Your task to perform on an android device: Open the map Image 0: 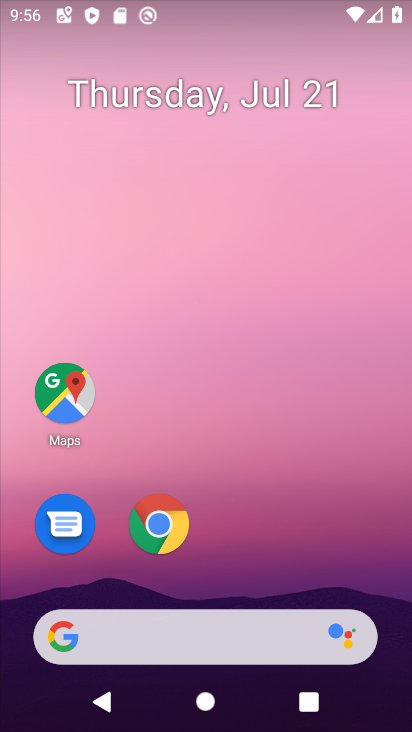
Step 0: press home button
Your task to perform on an android device: Open the map Image 1: 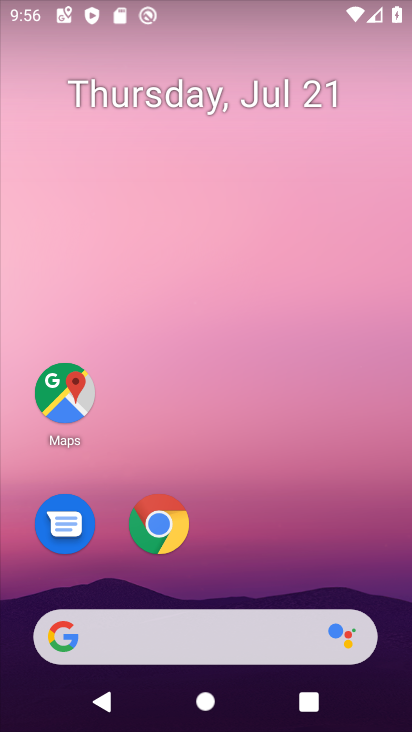
Step 1: click (61, 389)
Your task to perform on an android device: Open the map Image 2: 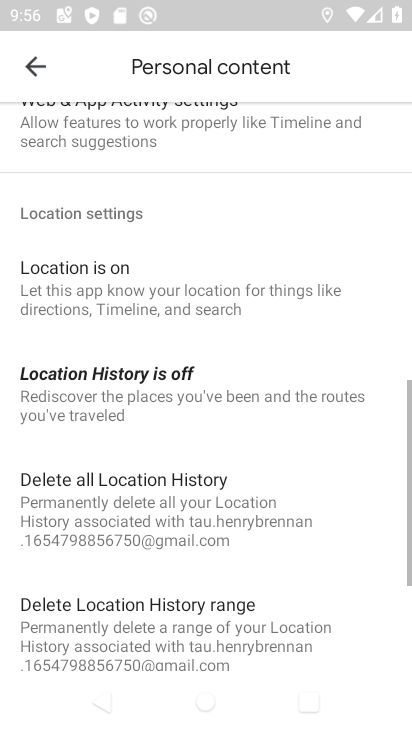
Step 2: click (31, 64)
Your task to perform on an android device: Open the map Image 3: 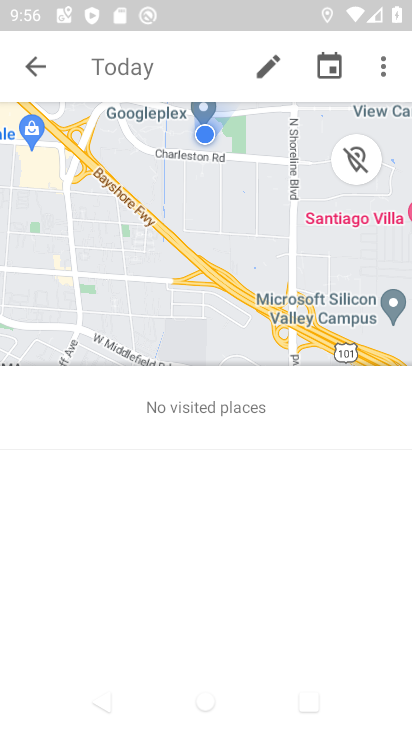
Step 3: click (31, 65)
Your task to perform on an android device: Open the map Image 4: 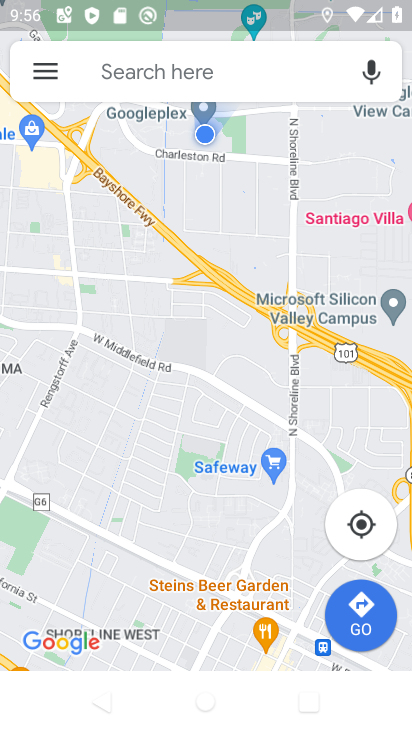
Step 4: task complete